Your task to perform on an android device: Show me popular games on the Play Store Image 0: 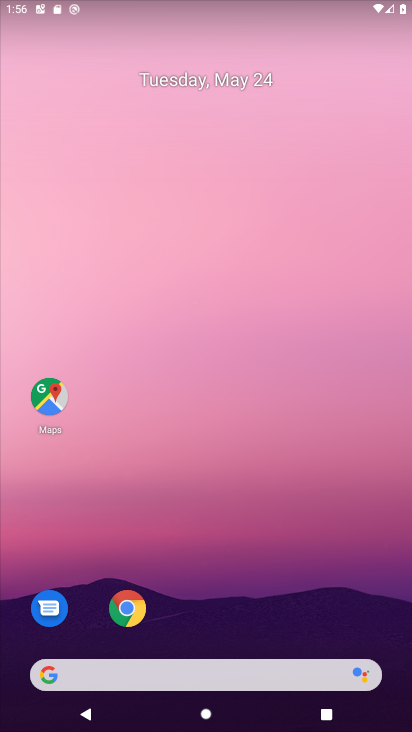
Step 0: drag from (277, 601) to (230, 375)
Your task to perform on an android device: Show me popular games on the Play Store Image 1: 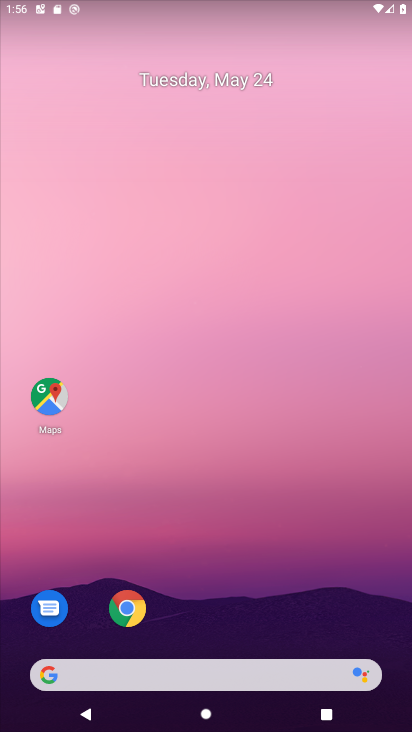
Step 1: click (286, 624)
Your task to perform on an android device: Show me popular games on the Play Store Image 2: 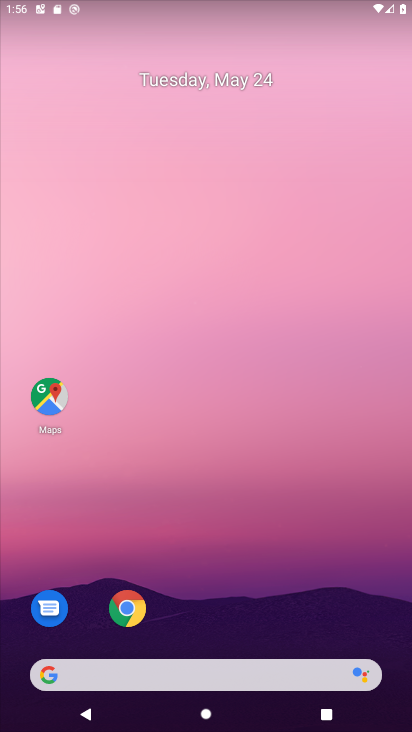
Step 2: drag from (286, 624) to (180, 0)
Your task to perform on an android device: Show me popular games on the Play Store Image 3: 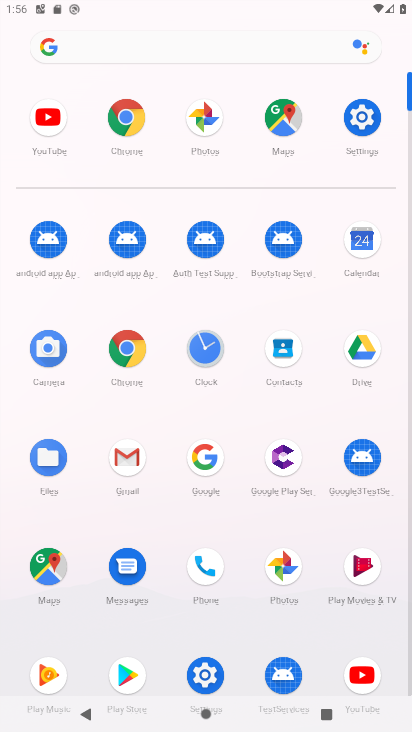
Step 3: click (136, 662)
Your task to perform on an android device: Show me popular games on the Play Store Image 4: 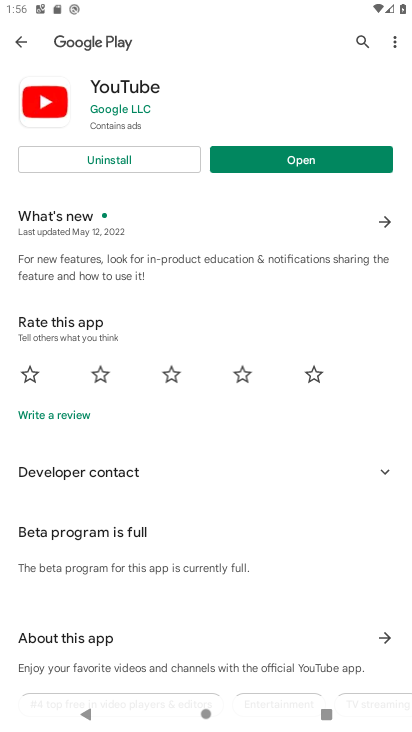
Step 4: click (29, 39)
Your task to perform on an android device: Show me popular games on the Play Store Image 5: 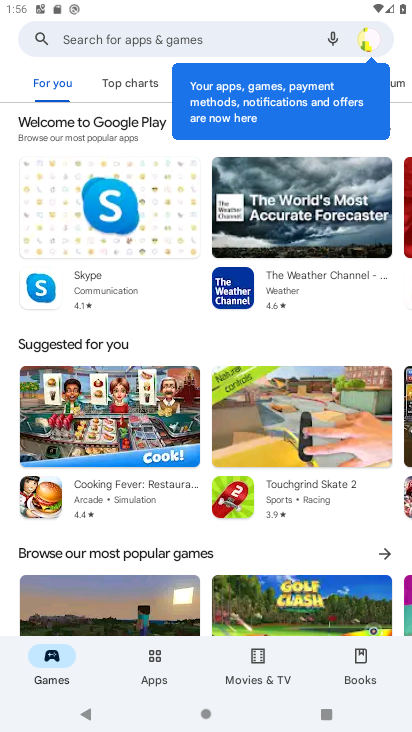
Step 5: click (128, 74)
Your task to perform on an android device: Show me popular games on the Play Store Image 6: 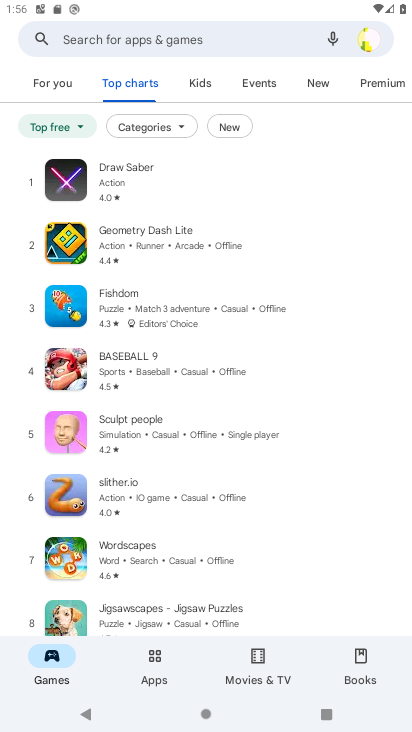
Step 6: task complete